Your task to perform on an android device: visit the assistant section in the google photos Image 0: 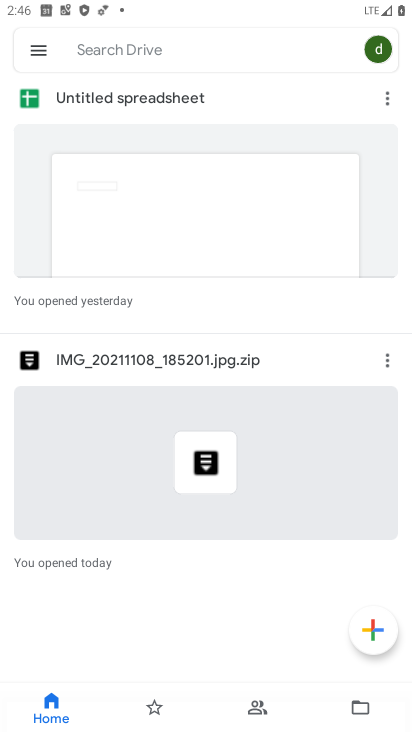
Step 0: press home button
Your task to perform on an android device: visit the assistant section in the google photos Image 1: 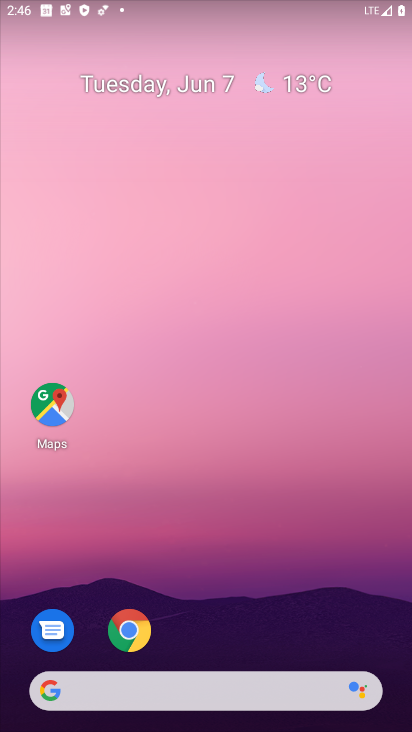
Step 1: drag from (265, 577) to (277, 9)
Your task to perform on an android device: visit the assistant section in the google photos Image 2: 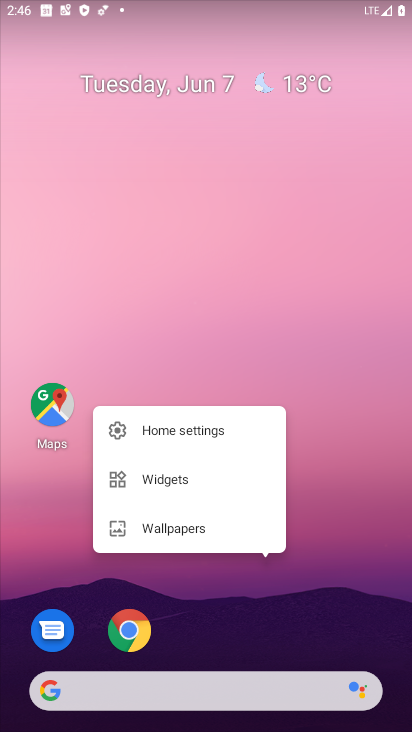
Step 2: click (281, 229)
Your task to perform on an android device: visit the assistant section in the google photos Image 3: 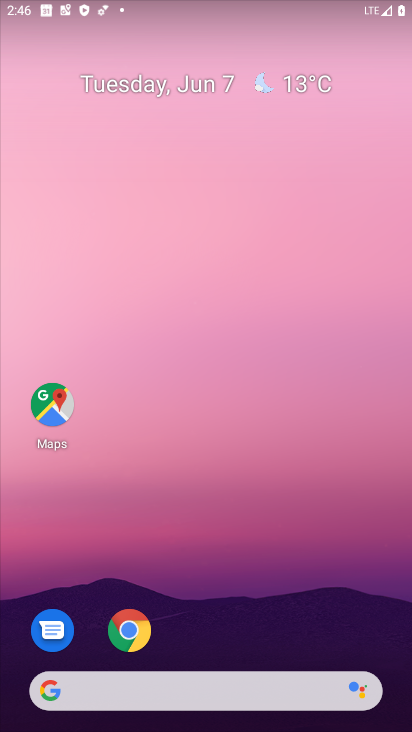
Step 3: drag from (288, 627) to (314, 379)
Your task to perform on an android device: visit the assistant section in the google photos Image 4: 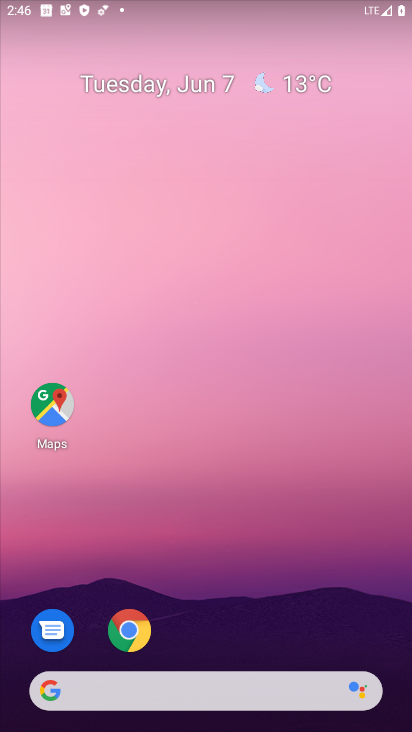
Step 4: drag from (317, 641) to (333, 139)
Your task to perform on an android device: visit the assistant section in the google photos Image 5: 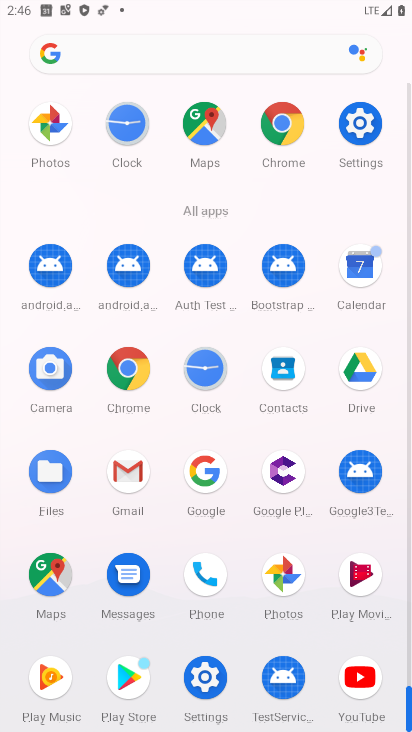
Step 5: click (283, 568)
Your task to perform on an android device: visit the assistant section in the google photos Image 6: 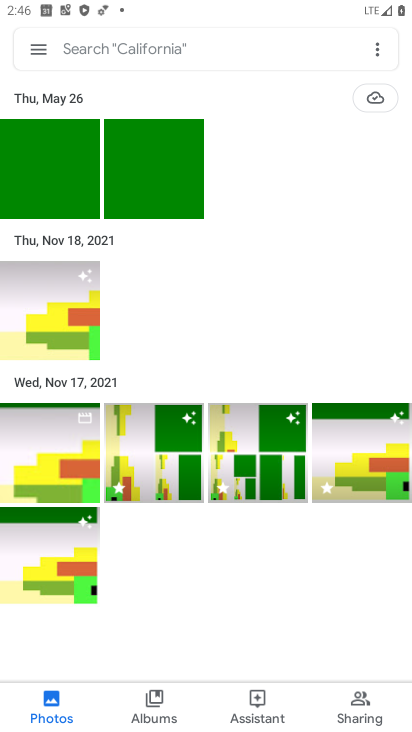
Step 6: click (258, 709)
Your task to perform on an android device: visit the assistant section in the google photos Image 7: 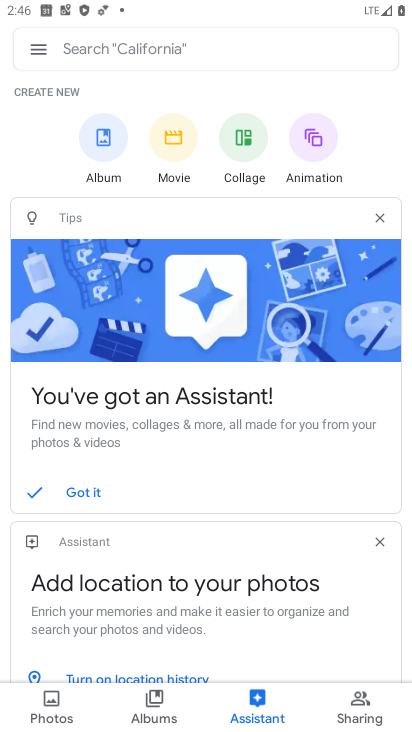
Step 7: task complete